Your task to perform on an android device: Is it going to rain tomorrow? Image 0: 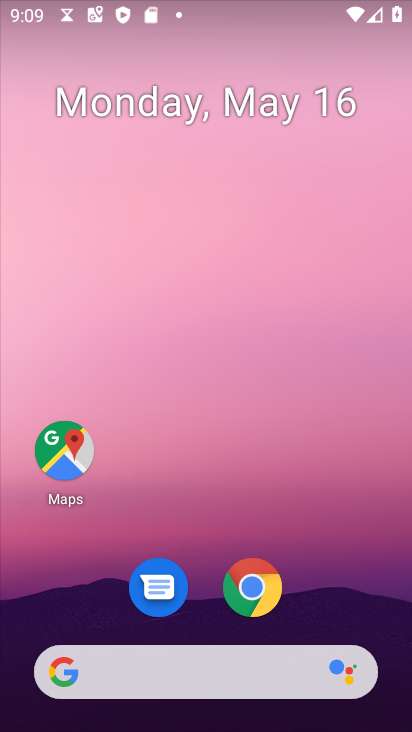
Step 0: drag from (347, 632) to (194, 90)
Your task to perform on an android device: Is it going to rain tomorrow? Image 1: 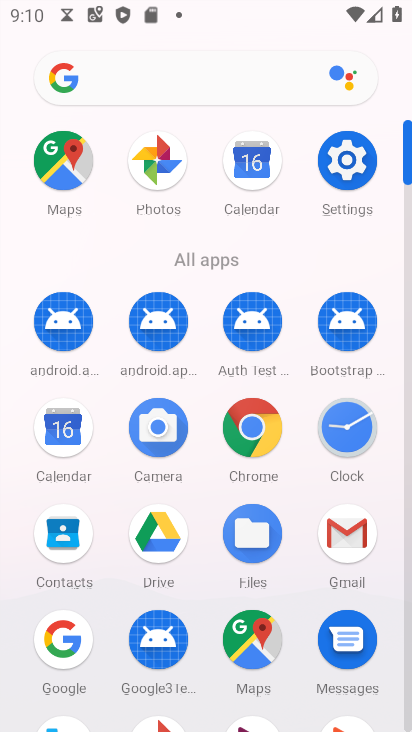
Step 1: click (255, 438)
Your task to perform on an android device: Is it going to rain tomorrow? Image 2: 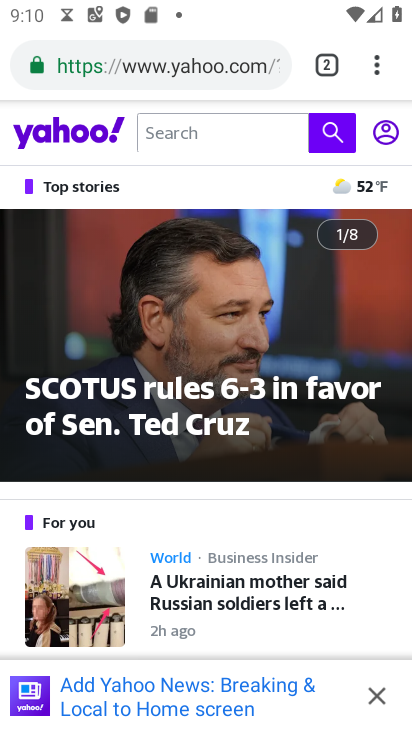
Step 2: click (205, 56)
Your task to perform on an android device: Is it going to rain tomorrow? Image 3: 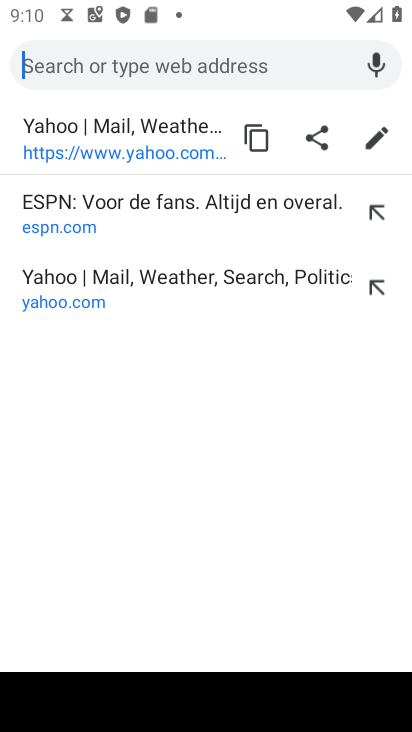
Step 3: type "Is it going to rain tomorrow?"
Your task to perform on an android device: Is it going to rain tomorrow? Image 4: 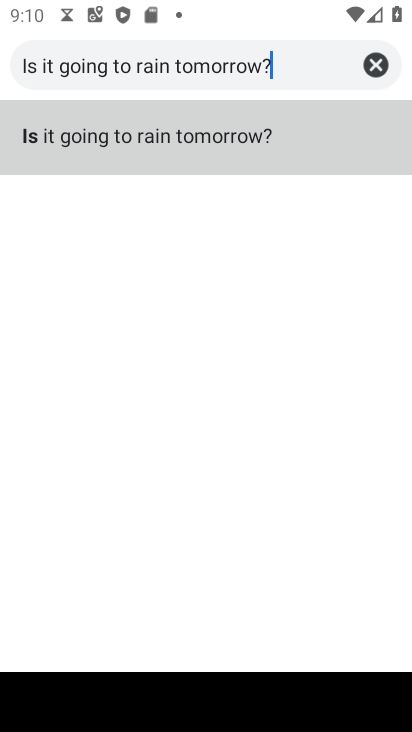
Step 4: click (180, 142)
Your task to perform on an android device: Is it going to rain tomorrow? Image 5: 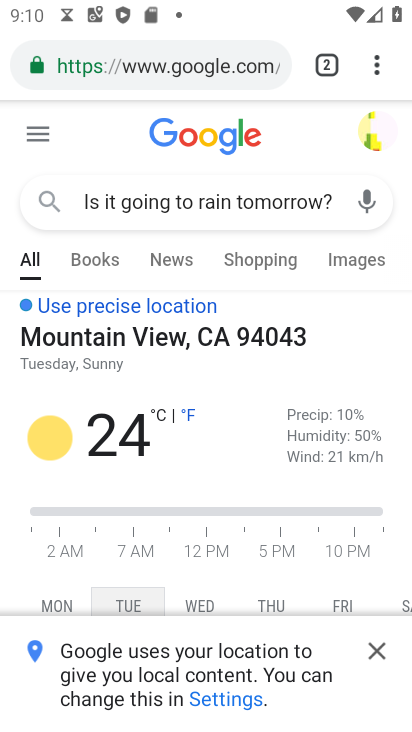
Step 5: click (377, 646)
Your task to perform on an android device: Is it going to rain tomorrow? Image 6: 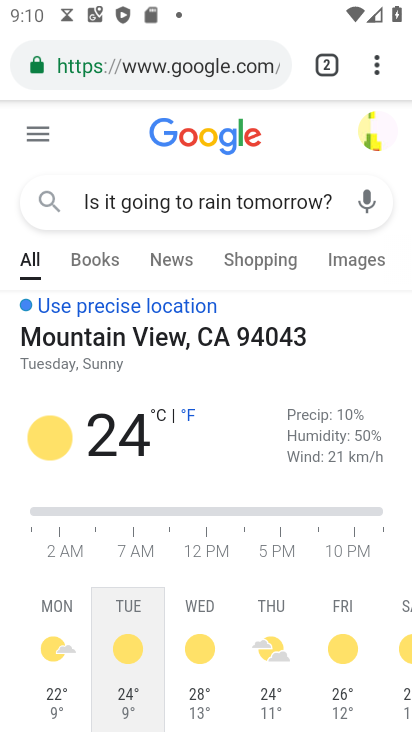
Step 6: drag from (367, 578) to (323, 362)
Your task to perform on an android device: Is it going to rain tomorrow? Image 7: 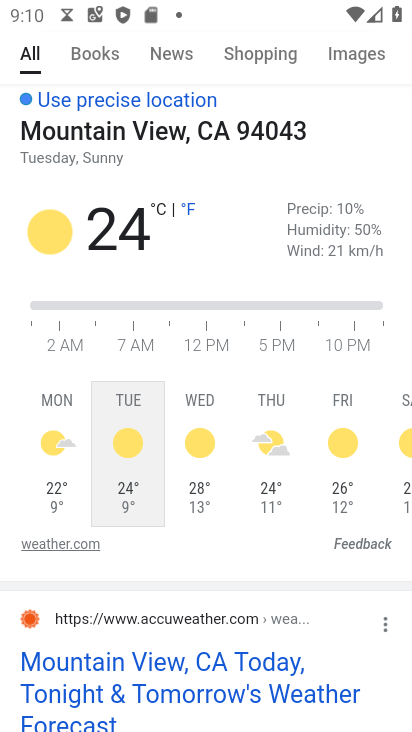
Step 7: click (209, 414)
Your task to perform on an android device: Is it going to rain tomorrow? Image 8: 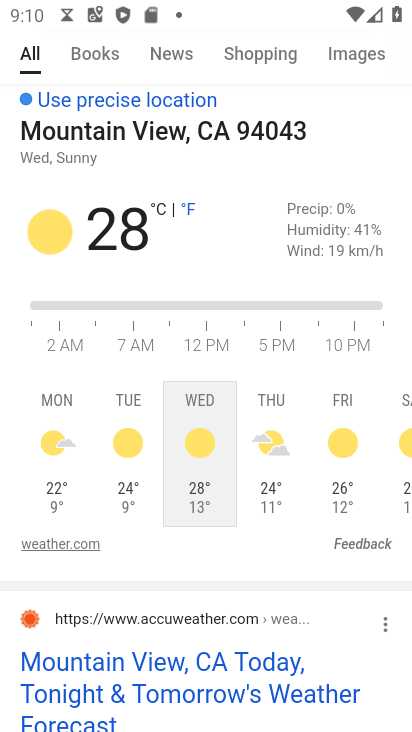
Step 8: task complete